Your task to perform on an android device: search for starred emails in the gmail app Image 0: 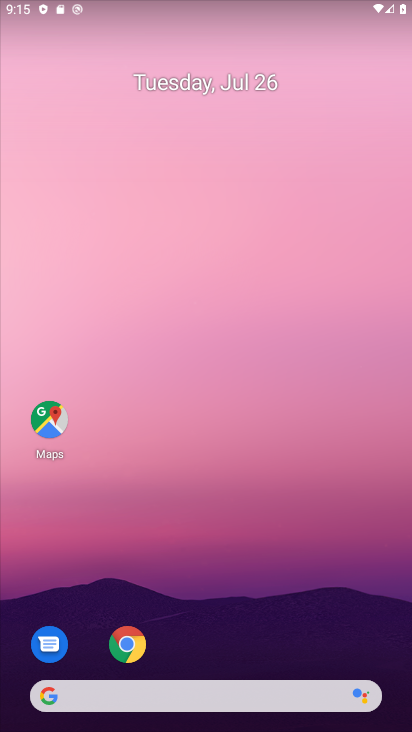
Step 0: drag from (203, 497) to (210, 0)
Your task to perform on an android device: search for starred emails in the gmail app Image 1: 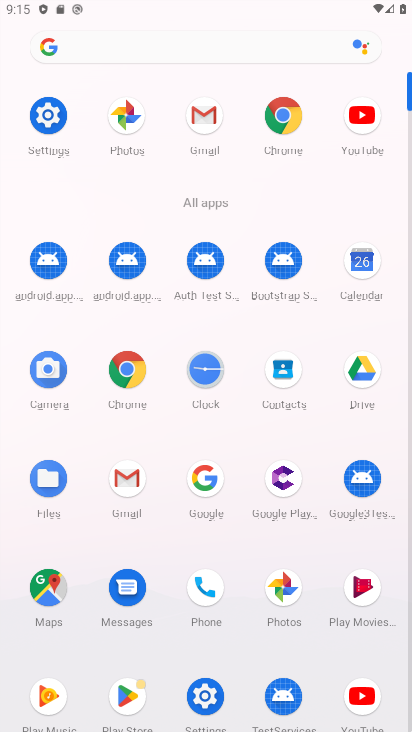
Step 1: click (150, 490)
Your task to perform on an android device: search for starred emails in the gmail app Image 2: 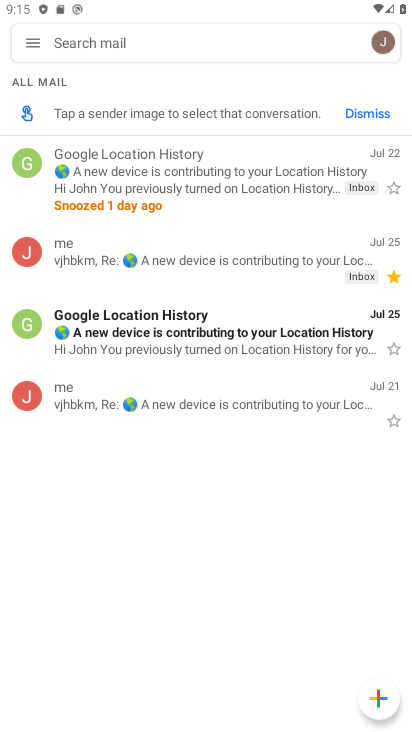
Step 2: click (30, 58)
Your task to perform on an android device: search for starred emails in the gmail app Image 3: 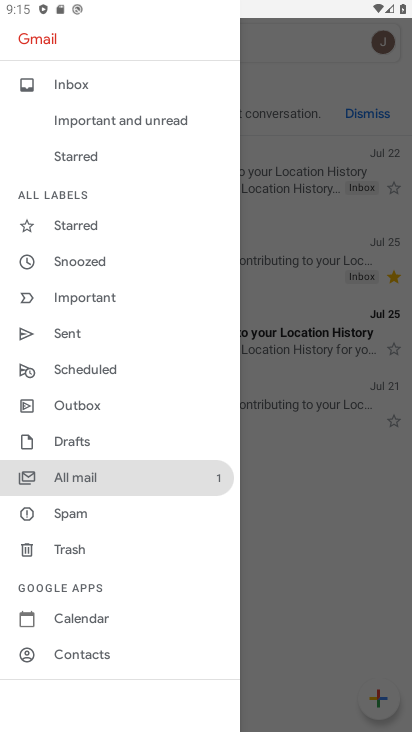
Step 3: click (86, 232)
Your task to perform on an android device: search for starred emails in the gmail app Image 4: 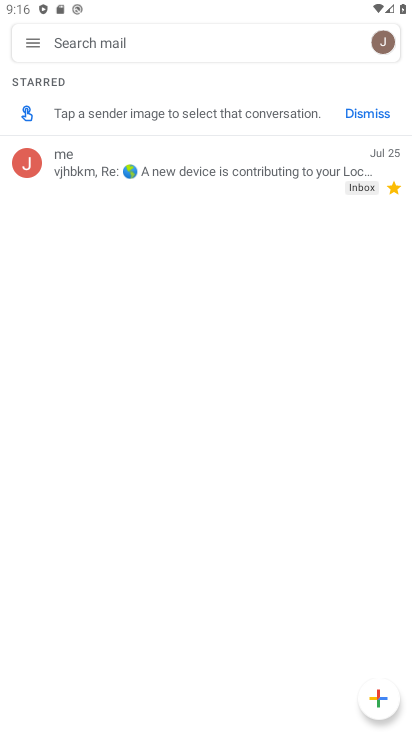
Step 4: task complete